Your task to perform on an android device: open app "ZOOM Cloud Meetings" (install if not already installed) and go to login screen Image 0: 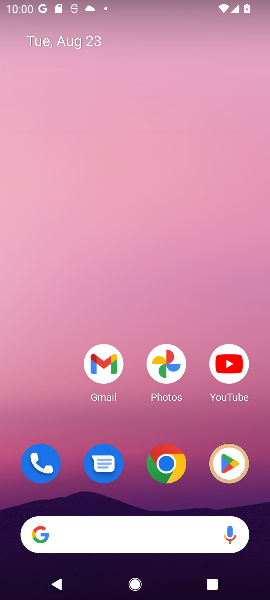
Step 0: drag from (138, 437) to (157, 41)
Your task to perform on an android device: open app "ZOOM Cloud Meetings" (install if not already installed) and go to login screen Image 1: 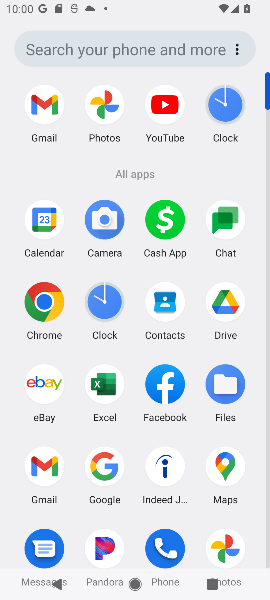
Step 1: drag from (126, 518) to (153, 171)
Your task to perform on an android device: open app "ZOOM Cloud Meetings" (install if not already installed) and go to login screen Image 2: 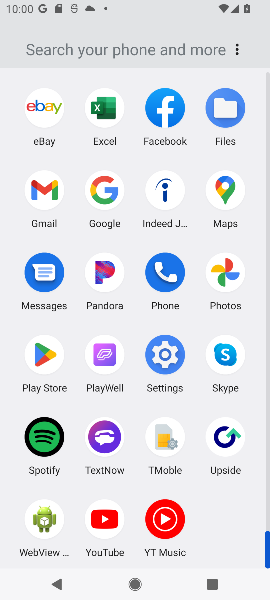
Step 2: click (44, 353)
Your task to perform on an android device: open app "ZOOM Cloud Meetings" (install if not already installed) and go to login screen Image 3: 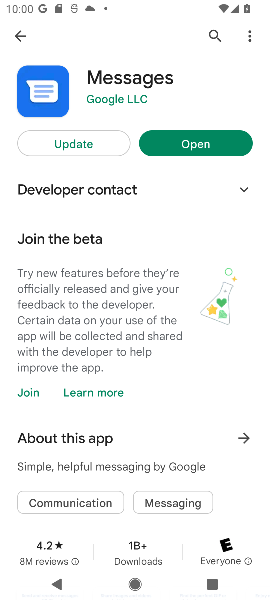
Step 3: click (207, 33)
Your task to perform on an android device: open app "ZOOM Cloud Meetings" (install if not already installed) and go to login screen Image 4: 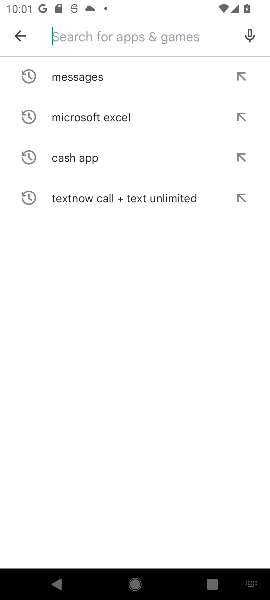
Step 4: type "ZOOM Cloud Meetings"
Your task to perform on an android device: open app "ZOOM Cloud Meetings" (install if not already installed) and go to login screen Image 5: 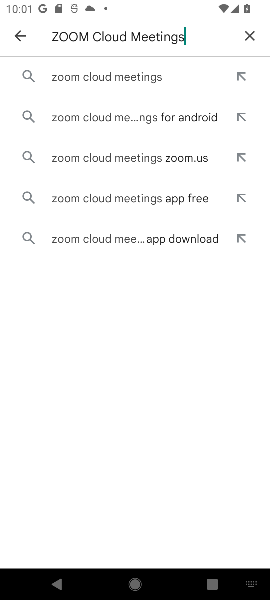
Step 5: click (133, 86)
Your task to perform on an android device: open app "ZOOM Cloud Meetings" (install if not already installed) and go to login screen Image 6: 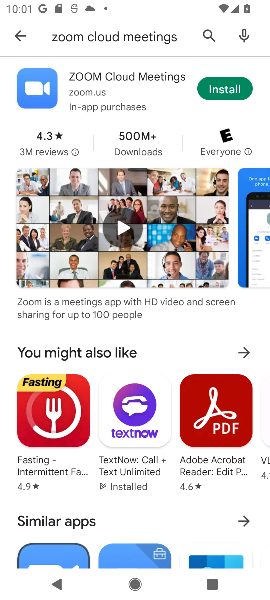
Step 6: click (222, 85)
Your task to perform on an android device: open app "ZOOM Cloud Meetings" (install if not already installed) and go to login screen Image 7: 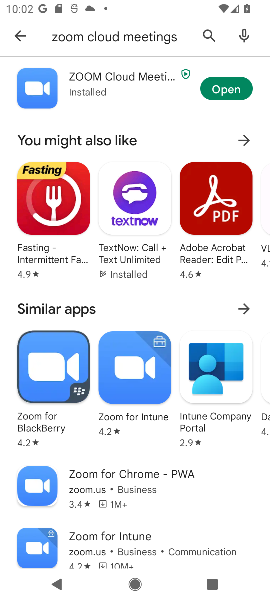
Step 7: click (235, 90)
Your task to perform on an android device: open app "ZOOM Cloud Meetings" (install if not already installed) and go to login screen Image 8: 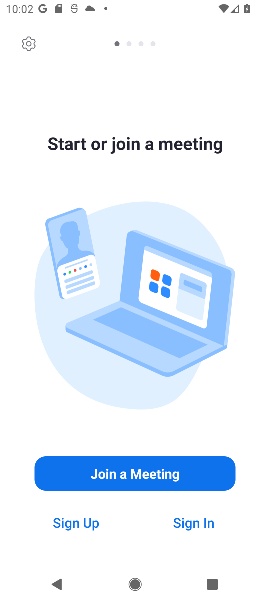
Step 8: task complete